Your task to perform on an android device: Open location settings Image 0: 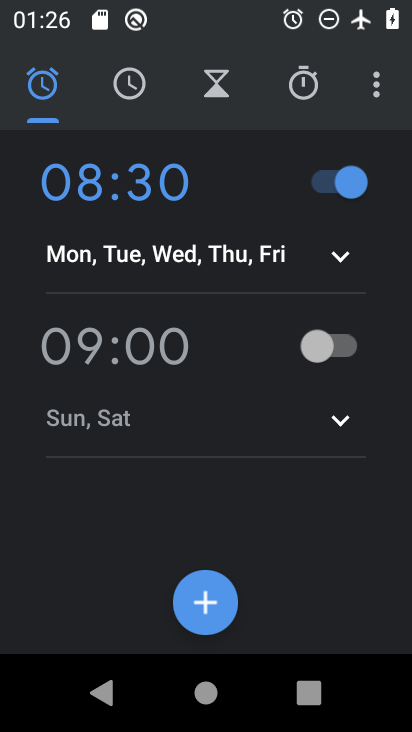
Step 0: press home button
Your task to perform on an android device: Open location settings Image 1: 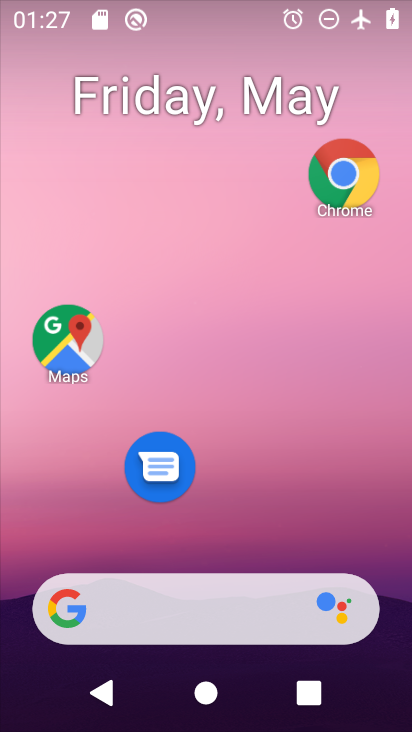
Step 1: drag from (251, 394) to (279, 171)
Your task to perform on an android device: Open location settings Image 2: 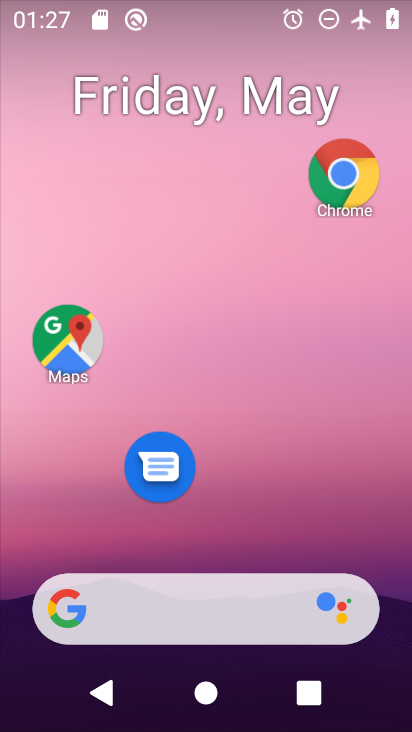
Step 2: drag from (198, 539) to (259, 268)
Your task to perform on an android device: Open location settings Image 3: 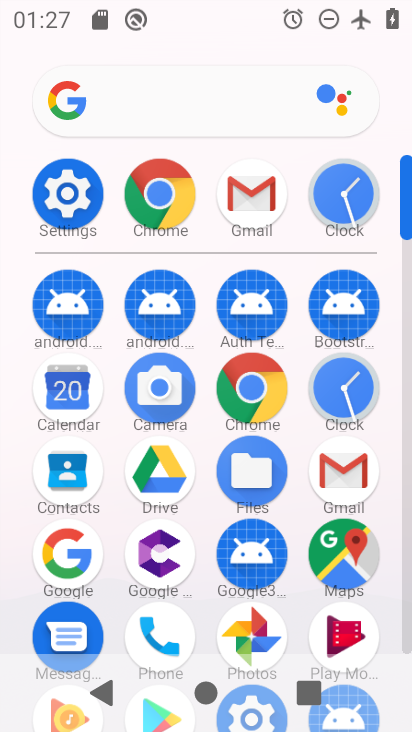
Step 3: click (75, 188)
Your task to perform on an android device: Open location settings Image 4: 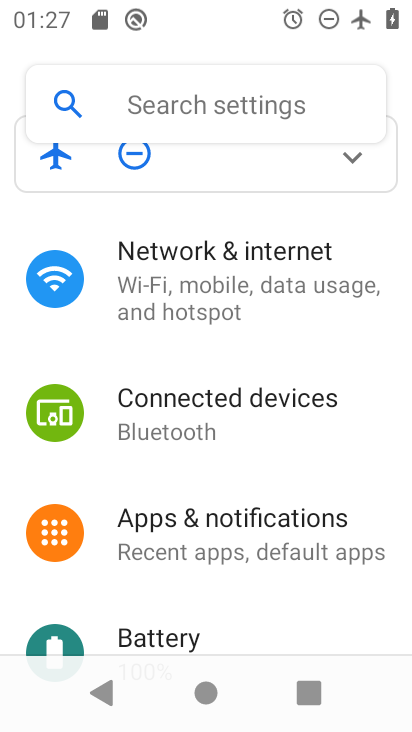
Step 4: drag from (234, 538) to (286, 246)
Your task to perform on an android device: Open location settings Image 5: 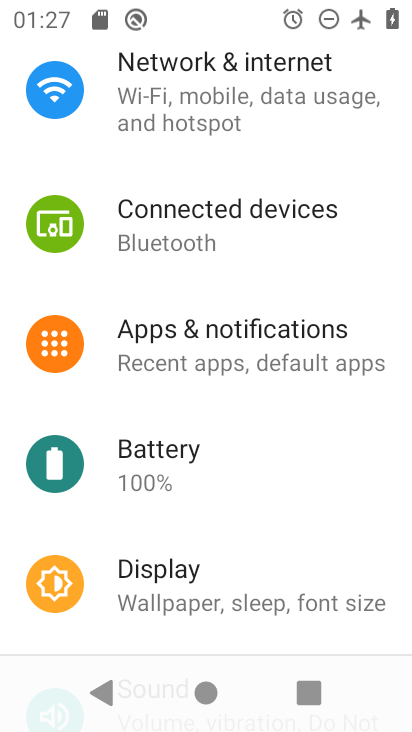
Step 5: drag from (211, 501) to (302, 178)
Your task to perform on an android device: Open location settings Image 6: 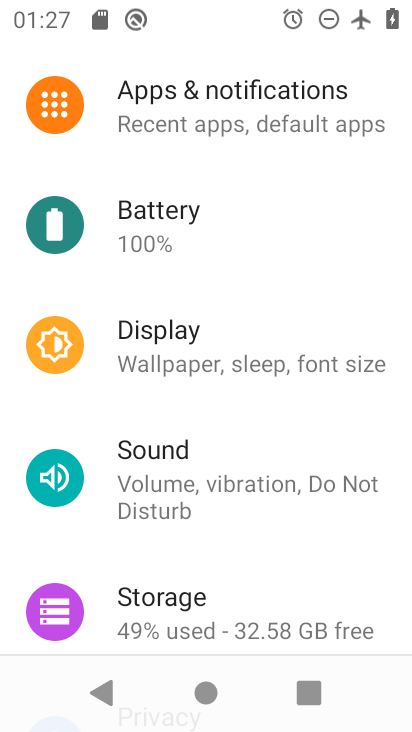
Step 6: drag from (195, 543) to (267, 205)
Your task to perform on an android device: Open location settings Image 7: 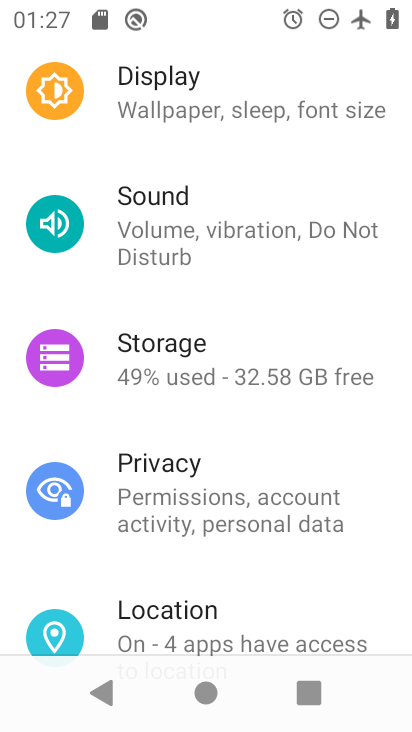
Step 7: click (172, 599)
Your task to perform on an android device: Open location settings Image 8: 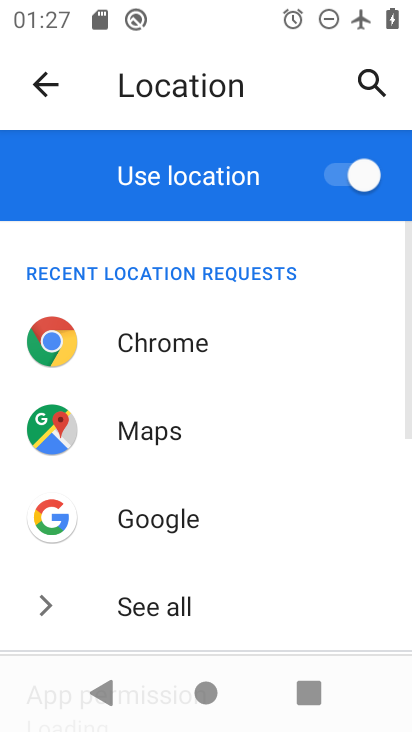
Step 8: task complete